Your task to perform on an android device: add a contact Image 0: 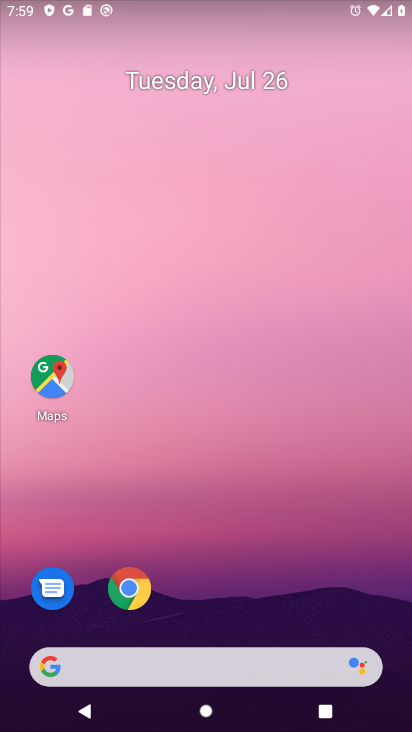
Step 0: drag from (188, 618) to (235, 70)
Your task to perform on an android device: add a contact Image 1: 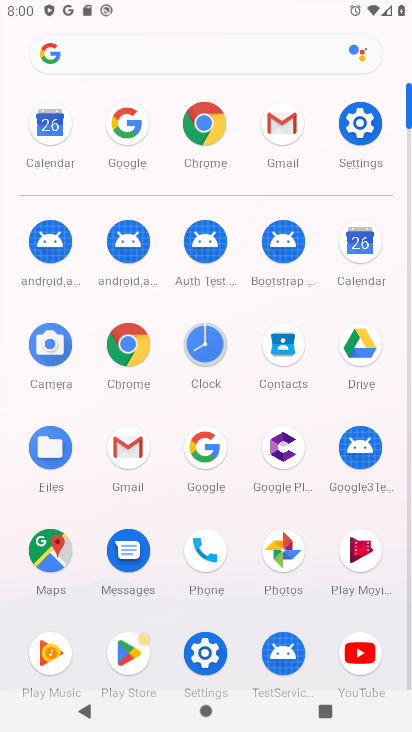
Step 1: click (294, 373)
Your task to perform on an android device: add a contact Image 2: 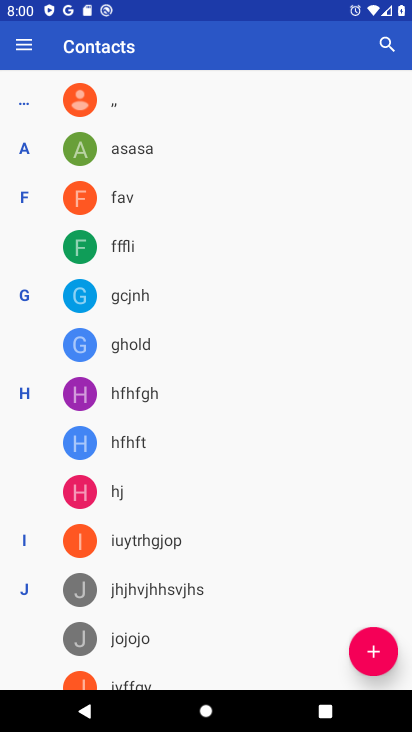
Step 2: click (385, 659)
Your task to perform on an android device: add a contact Image 3: 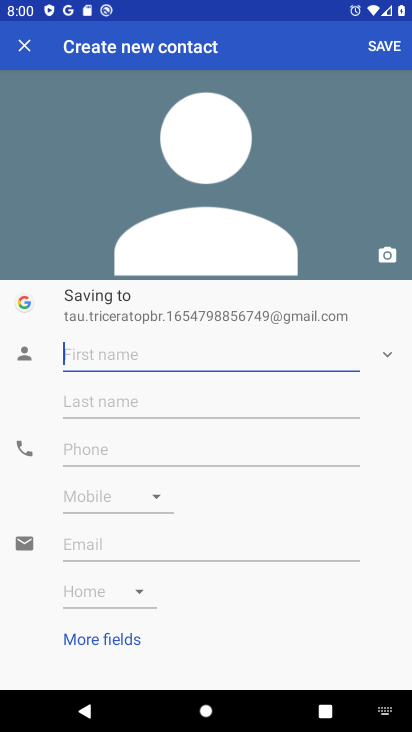
Step 3: type "hnb bvcbn"
Your task to perform on an android device: add a contact Image 4: 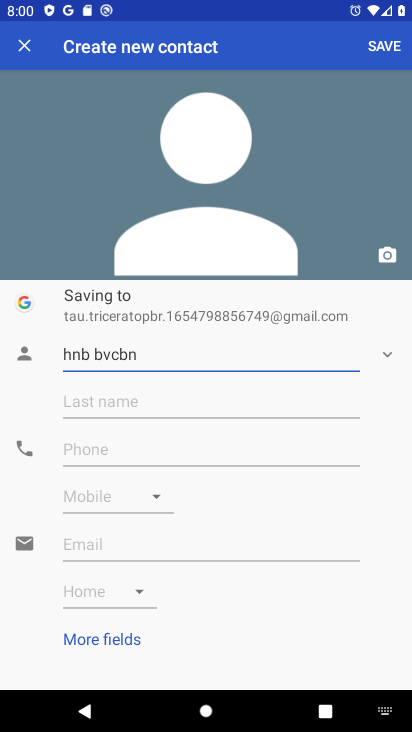
Step 4: click (153, 451)
Your task to perform on an android device: add a contact Image 5: 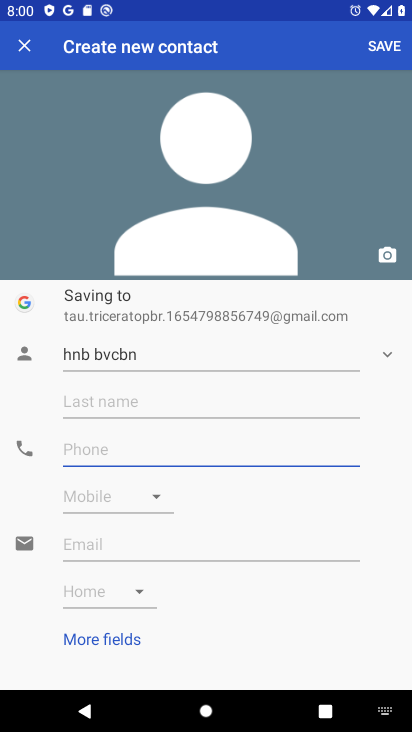
Step 5: type "67896548656"
Your task to perform on an android device: add a contact Image 6: 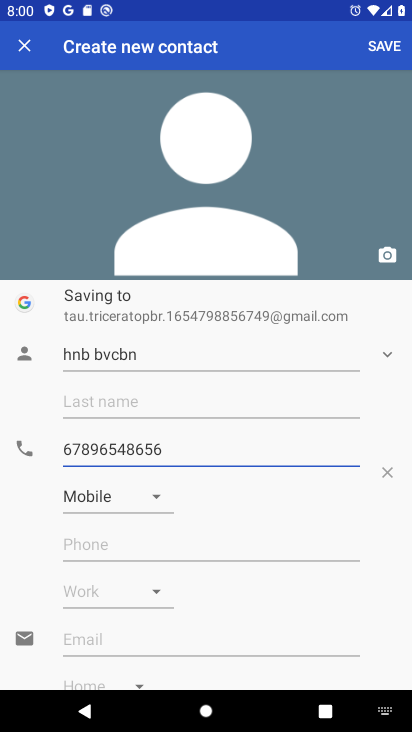
Step 6: click (385, 52)
Your task to perform on an android device: add a contact Image 7: 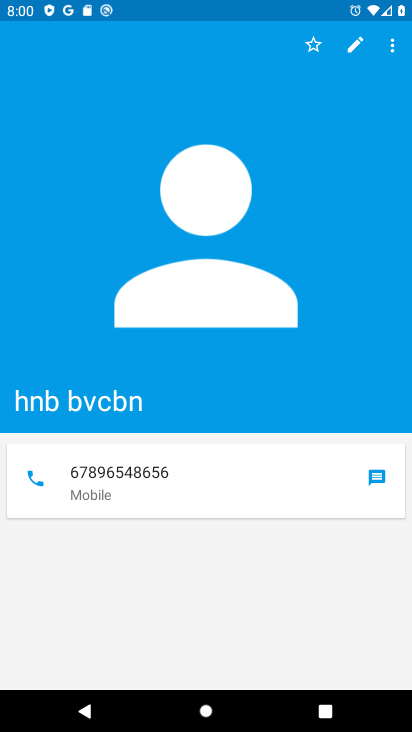
Step 7: task complete